Your task to perform on an android device: visit the assistant section in the google photos Image 0: 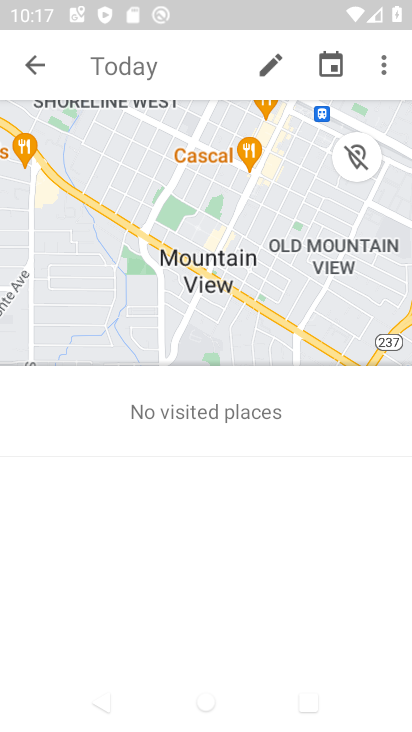
Step 0: press home button
Your task to perform on an android device: visit the assistant section in the google photos Image 1: 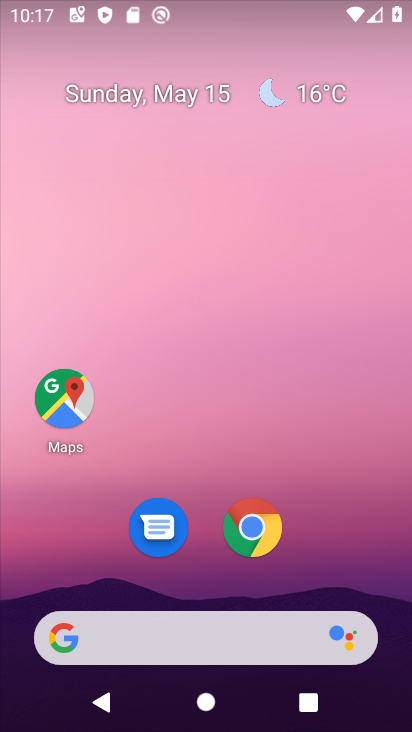
Step 1: drag from (384, 592) to (141, 9)
Your task to perform on an android device: visit the assistant section in the google photos Image 2: 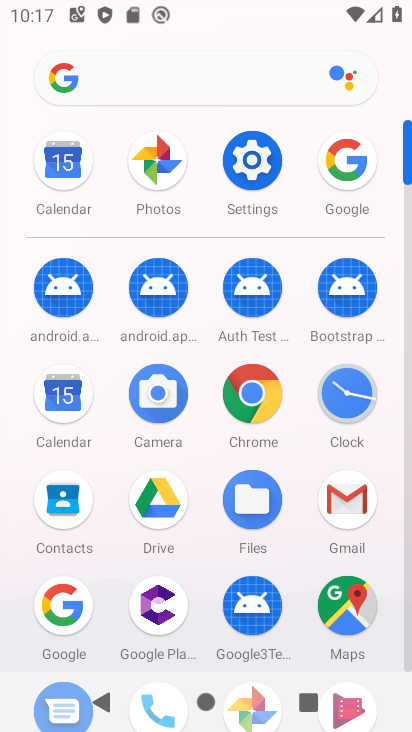
Step 2: click (163, 166)
Your task to perform on an android device: visit the assistant section in the google photos Image 3: 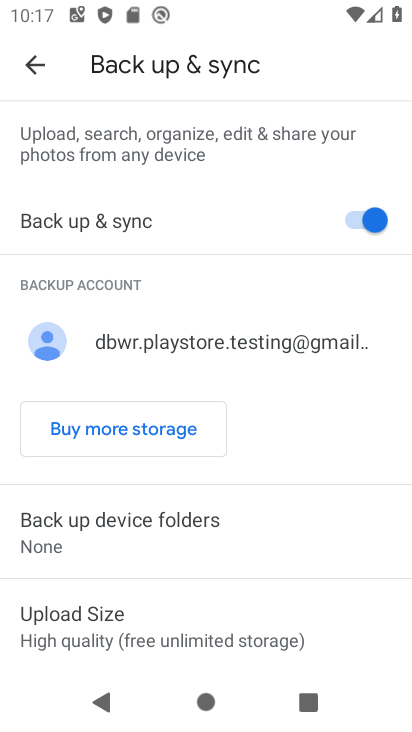
Step 3: click (31, 63)
Your task to perform on an android device: visit the assistant section in the google photos Image 4: 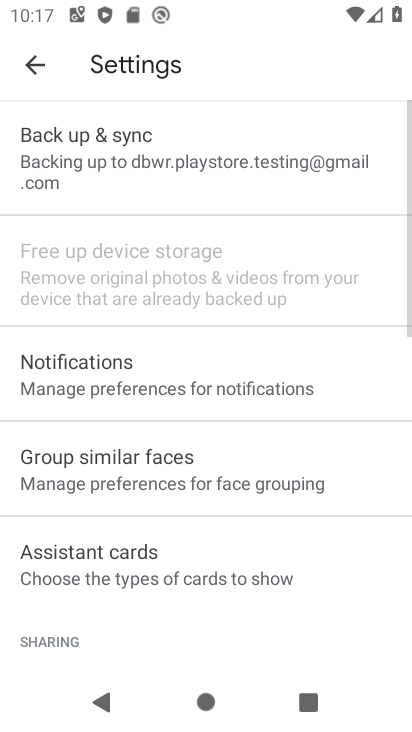
Step 4: click (31, 63)
Your task to perform on an android device: visit the assistant section in the google photos Image 5: 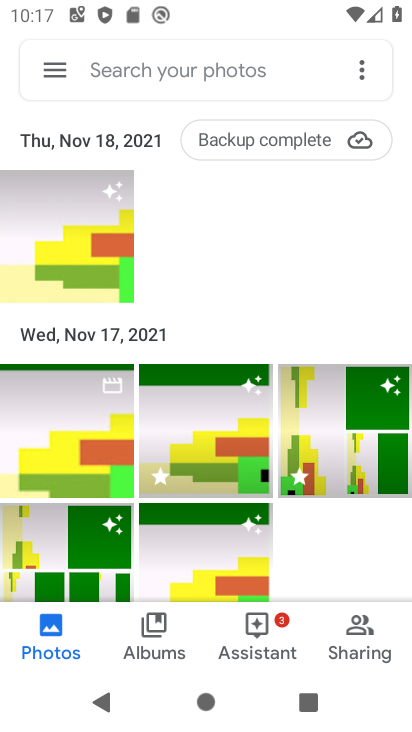
Step 5: click (237, 648)
Your task to perform on an android device: visit the assistant section in the google photos Image 6: 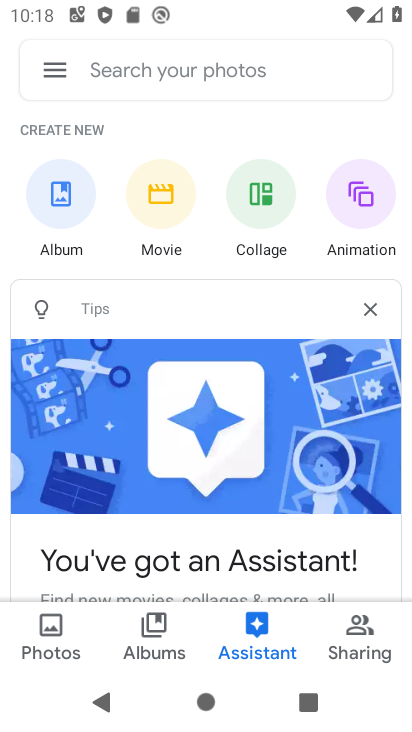
Step 6: task complete